Your task to perform on an android device: Open Youtube and go to "Your channel" Image 0: 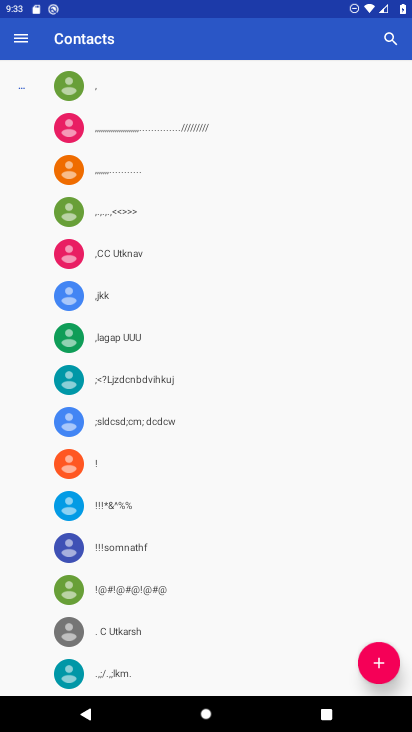
Step 0: press home button
Your task to perform on an android device: Open Youtube and go to "Your channel" Image 1: 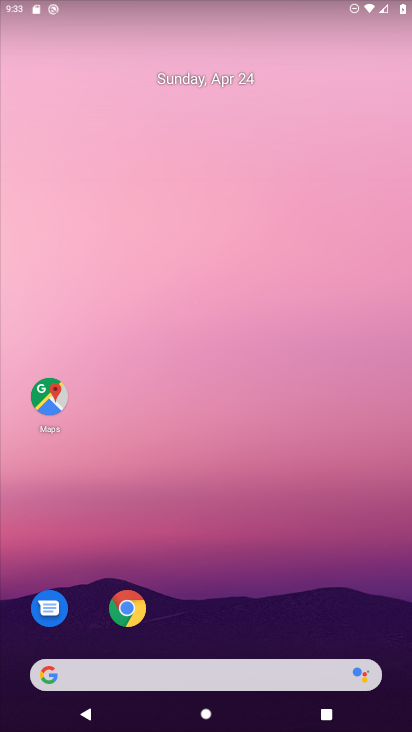
Step 1: drag from (222, 623) to (231, 267)
Your task to perform on an android device: Open Youtube and go to "Your channel" Image 2: 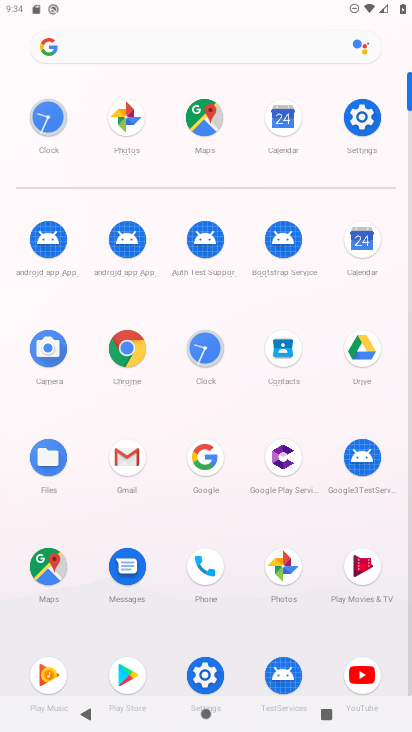
Step 2: click (357, 662)
Your task to perform on an android device: Open Youtube and go to "Your channel" Image 3: 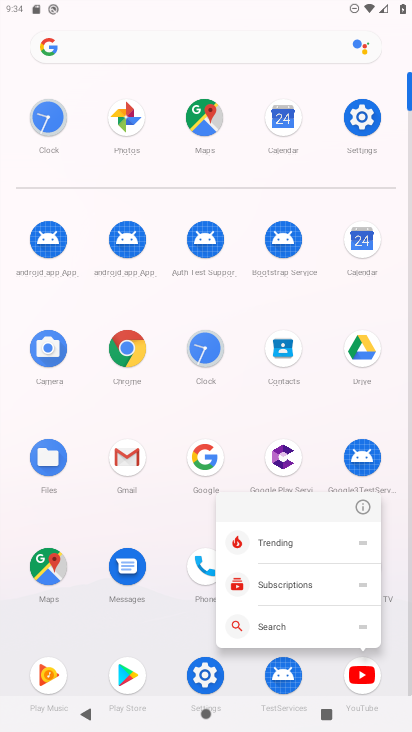
Step 3: click (355, 677)
Your task to perform on an android device: Open Youtube and go to "Your channel" Image 4: 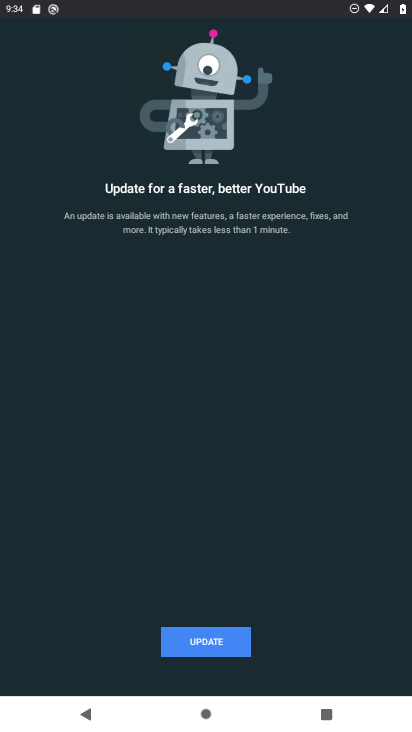
Step 4: click (233, 640)
Your task to perform on an android device: Open Youtube and go to "Your channel" Image 5: 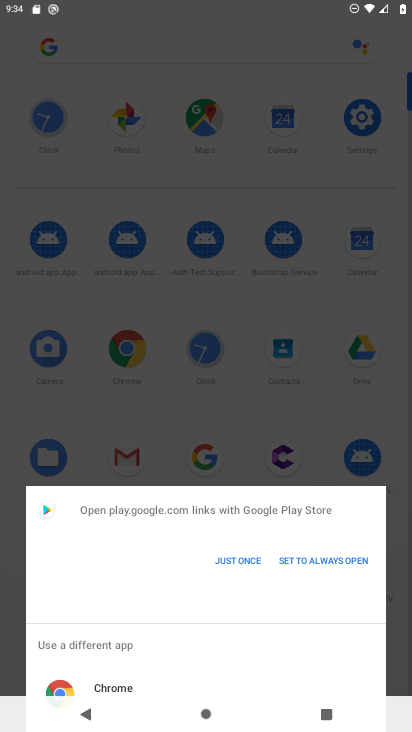
Step 5: click (236, 562)
Your task to perform on an android device: Open Youtube and go to "Your channel" Image 6: 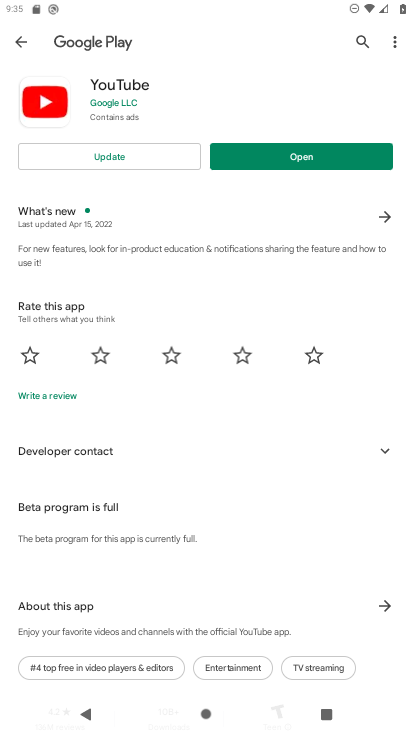
Step 6: click (177, 160)
Your task to perform on an android device: Open Youtube and go to "Your channel" Image 7: 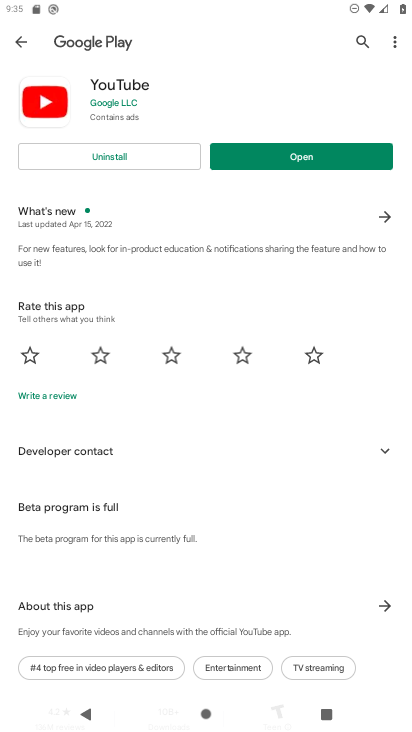
Step 7: click (341, 153)
Your task to perform on an android device: Open Youtube and go to "Your channel" Image 8: 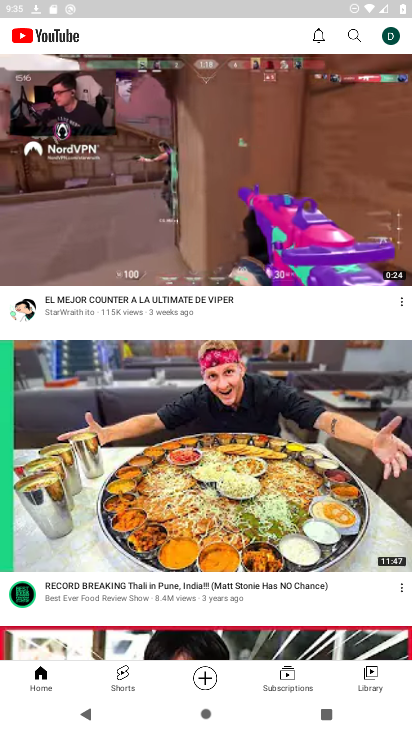
Step 8: click (394, 34)
Your task to perform on an android device: Open Youtube and go to "Your channel" Image 9: 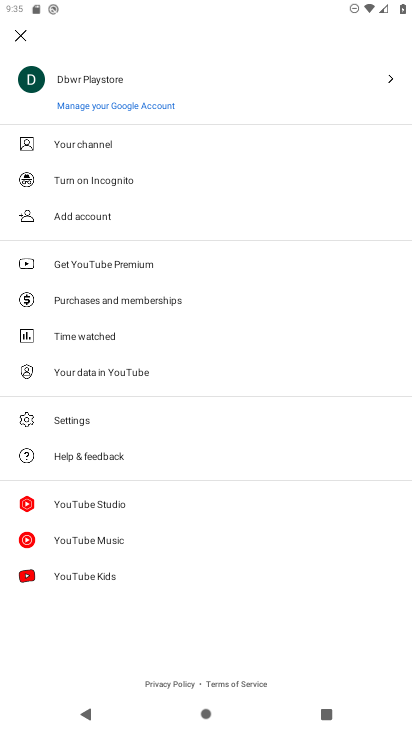
Step 9: click (147, 143)
Your task to perform on an android device: Open Youtube and go to "Your channel" Image 10: 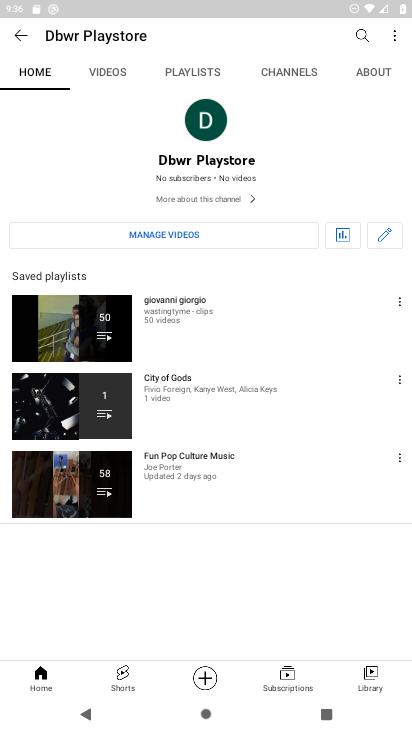
Step 10: task complete